Your task to perform on an android device: change notification settings in the gmail app Image 0: 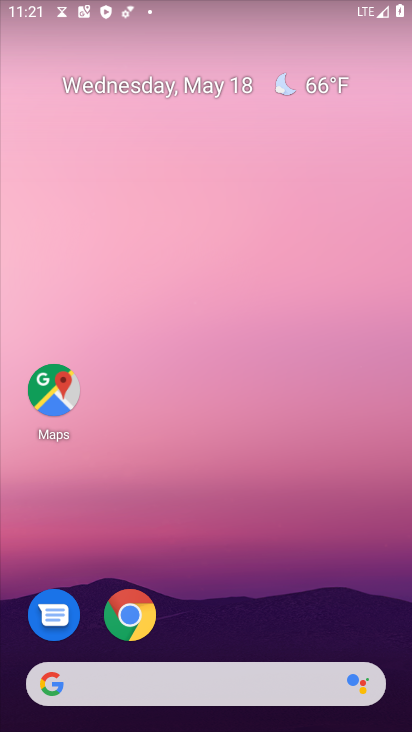
Step 0: drag from (248, 622) to (232, 3)
Your task to perform on an android device: change notification settings in the gmail app Image 1: 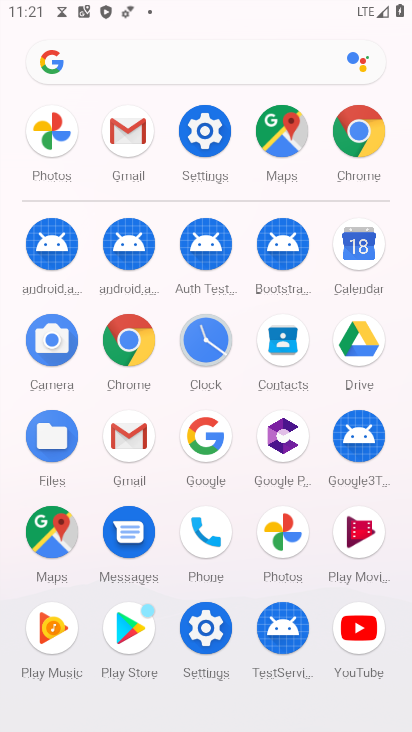
Step 1: click (127, 437)
Your task to perform on an android device: change notification settings in the gmail app Image 2: 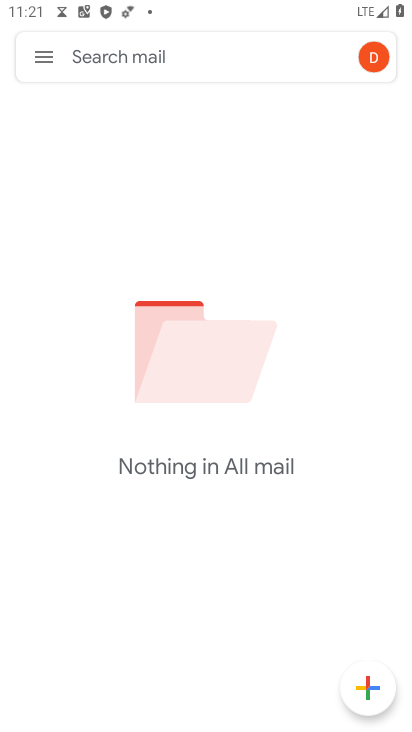
Step 2: click (37, 48)
Your task to perform on an android device: change notification settings in the gmail app Image 3: 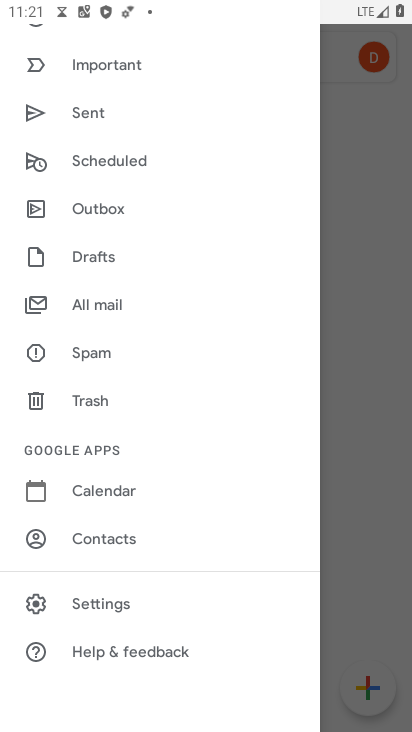
Step 3: drag from (159, 152) to (186, 119)
Your task to perform on an android device: change notification settings in the gmail app Image 4: 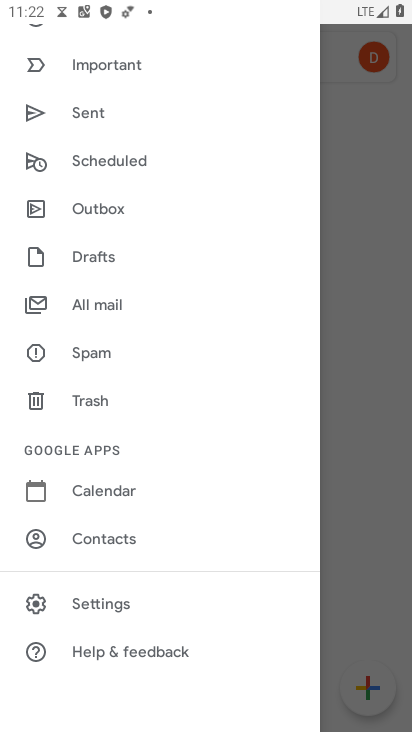
Step 4: click (116, 606)
Your task to perform on an android device: change notification settings in the gmail app Image 5: 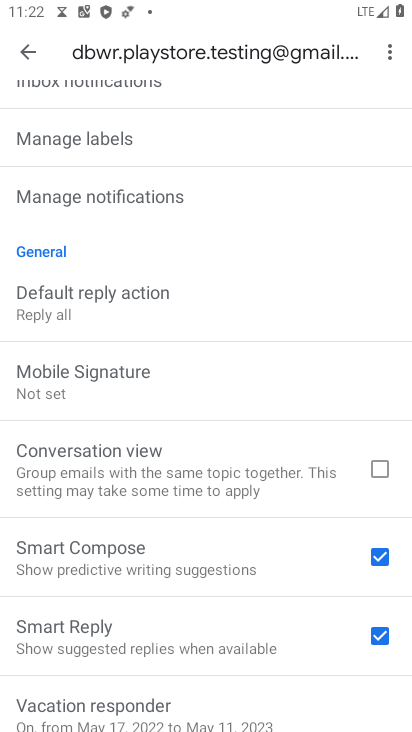
Step 5: click (132, 188)
Your task to perform on an android device: change notification settings in the gmail app Image 6: 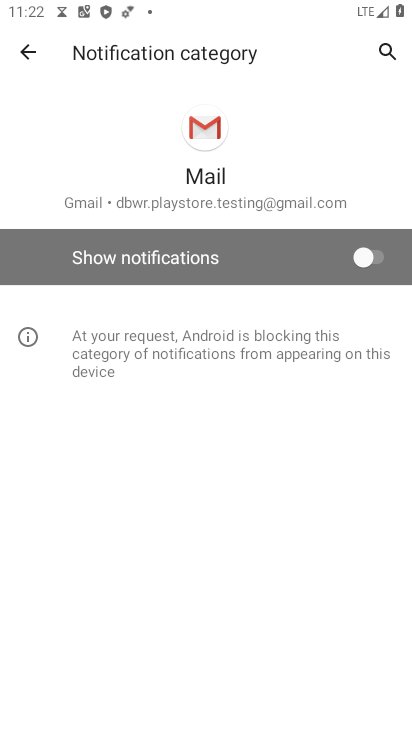
Step 6: click (368, 265)
Your task to perform on an android device: change notification settings in the gmail app Image 7: 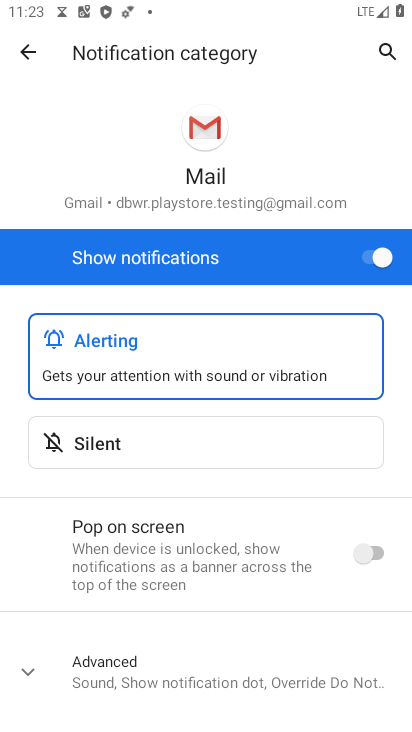
Step 7: task complete